Your task to perform on an android device: Open Maps and search for coffee Image 0: 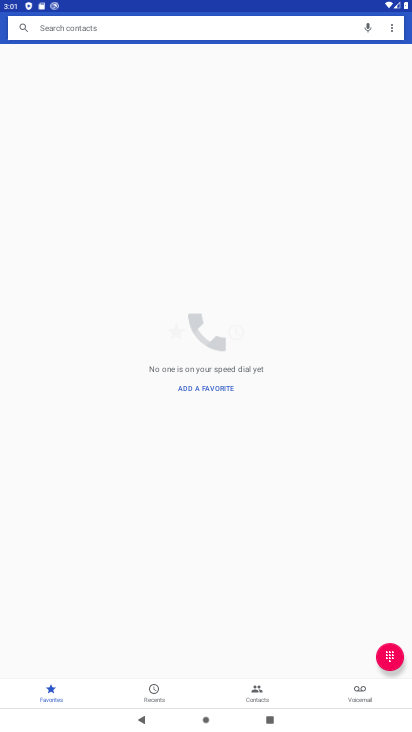
Step 0: press home button
Your task to perform on an android device: Open Maps and search for coffee Image 1: 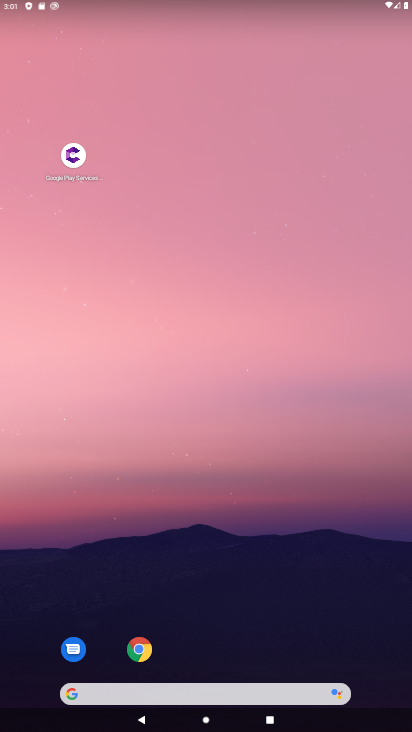
Step 1: drag from (219, 565) to (208, 158)
Your task to perform on an android device: Open Maps and search for coffee Image 2: 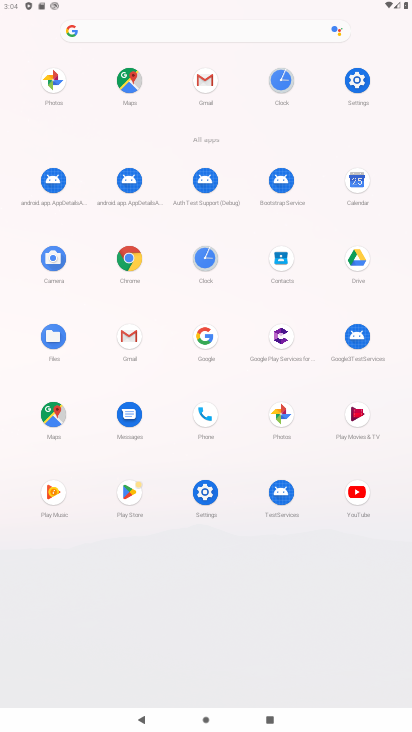
Step 2: click (135, 75)
Your task to perform on an android device: Open Maps and search for coffee Image 3: 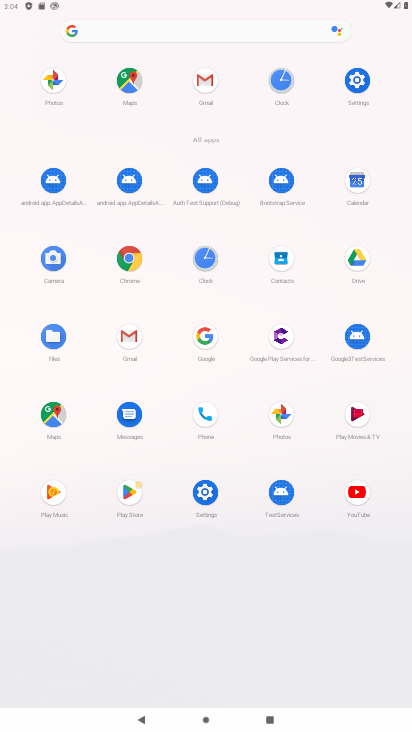
Step 3: click (135, 75)
Your task to perform on an android device: Open Maps and search for coffee Image 4: 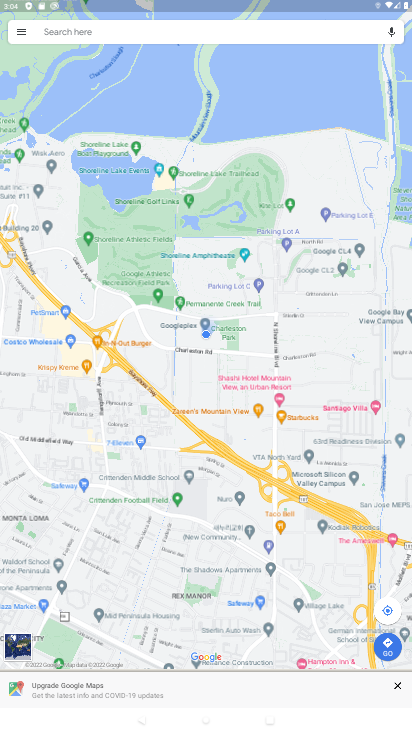
Step 4: click (133, 28)
Your task to perform on an android device: Open Maps and search for coffee Image 5: 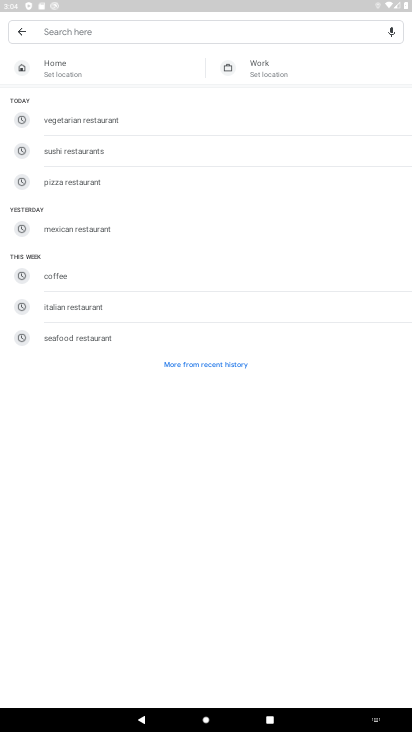
Step 5: click (54, 268)
Your task to perform on an android device: Open Maps and search for coffee Image 6: 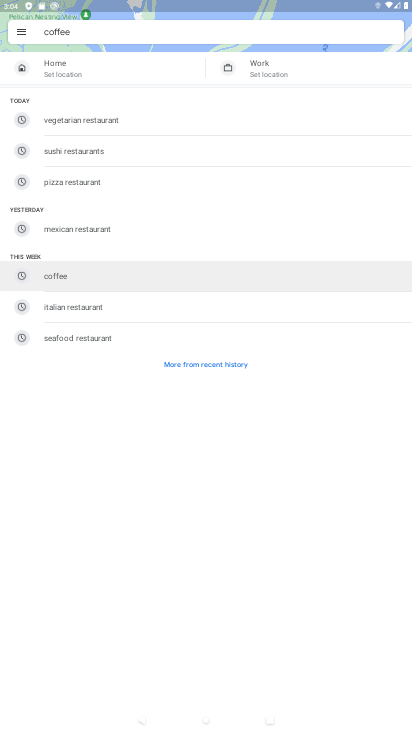
Step 6: click (54, 268)
Your task to perform on an android device: Open Maps and search for coffee Image 7: 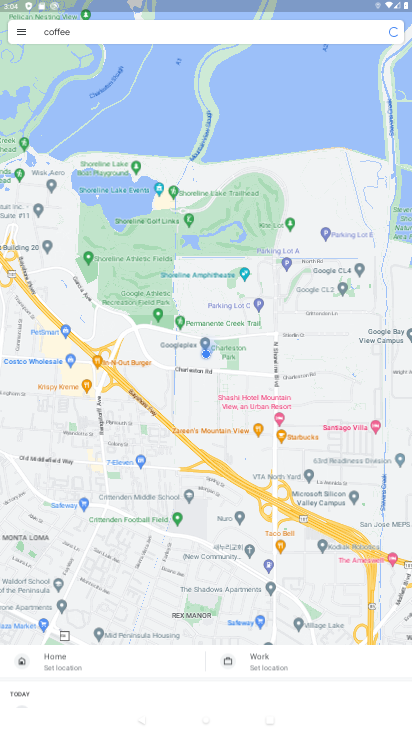
Step 7: click (54, 268)
Your task to perform on an android device: Open Maps and search for coffee Image 8: 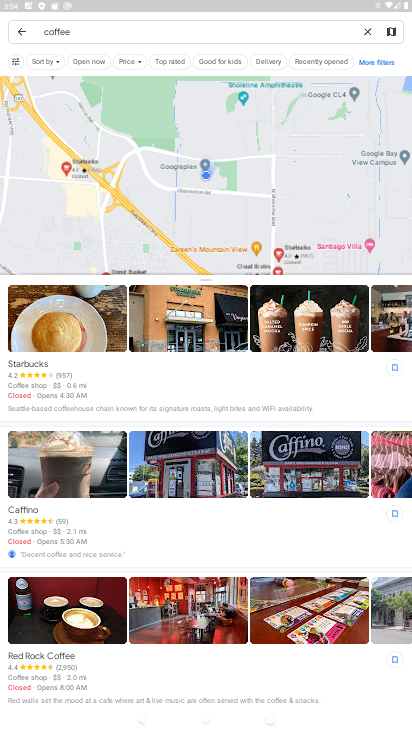
Step 8: task complete